Your task to perform on an android device: Open ESPN.com Image 0: 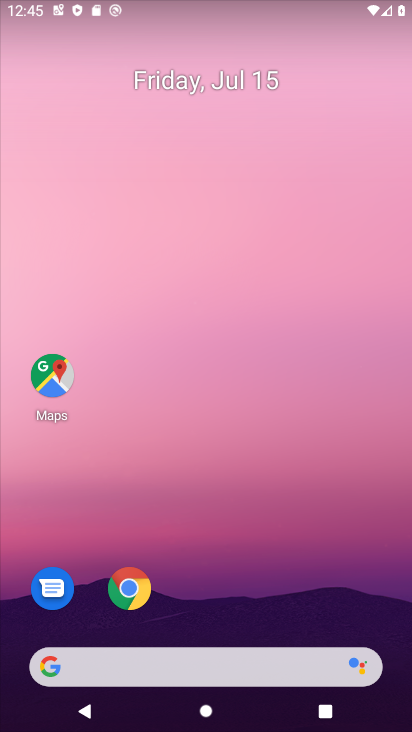
Step 0: click (146, 668)
Your task to perform on an android device: Open ESPN.com Image 1: 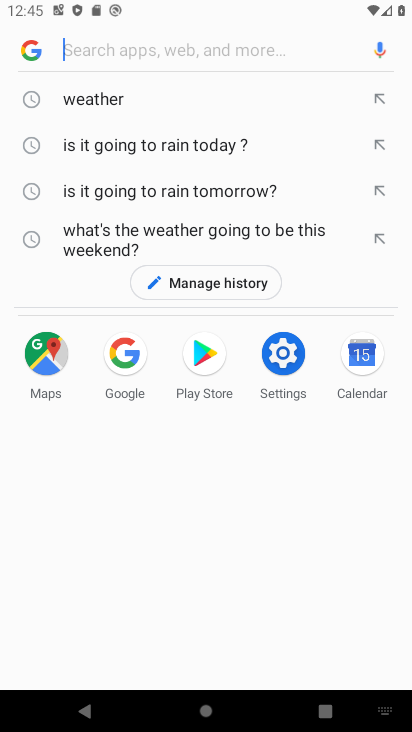
Step 1: type "espn.com"
Your task to perform on an android device: Open ESPN.com Image 2: 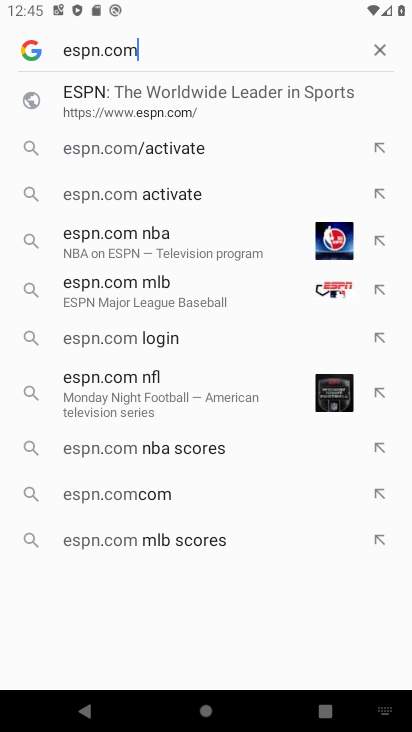
Step 2: click (298, 103)
Your task to perform on an android device: Open ESPN.com Image 3: 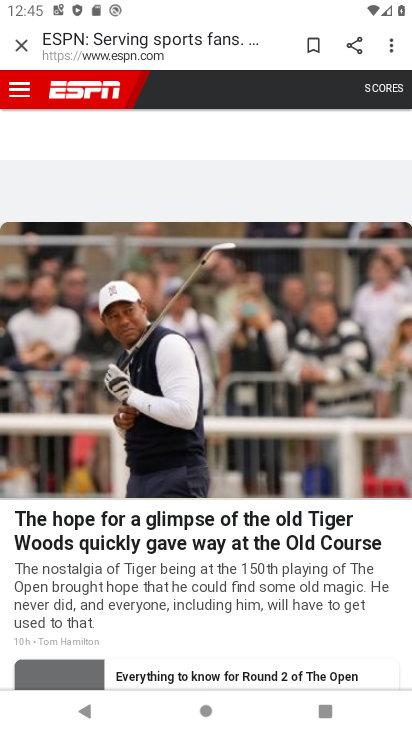
Step 3: task complete